Your task to perform on an android device: Open sound settings Image 0: 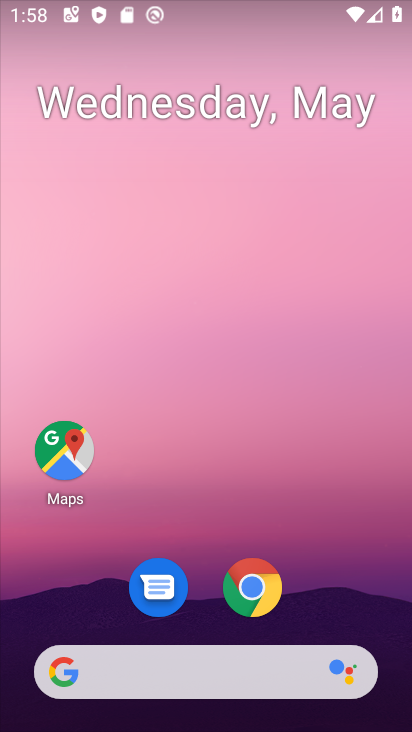
Step 0: drag from (89, 634) to (256, 182)
Your task to perform on an android device: Open sound settings Image 1: 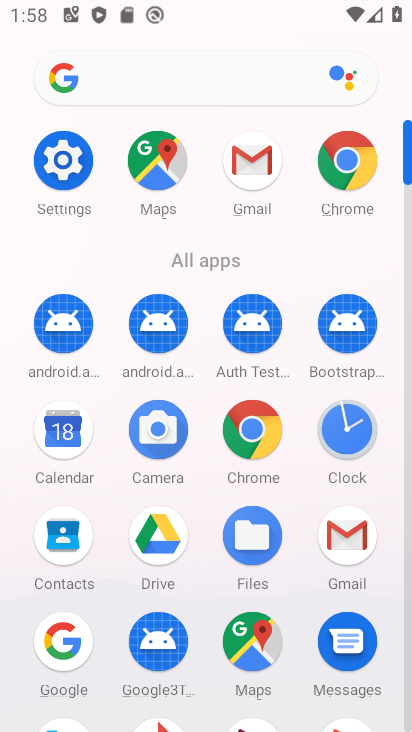
Step 1: drag from (171, 591) to (260, 360)
Your task to perform on an android device: Open sound settings Image 2: 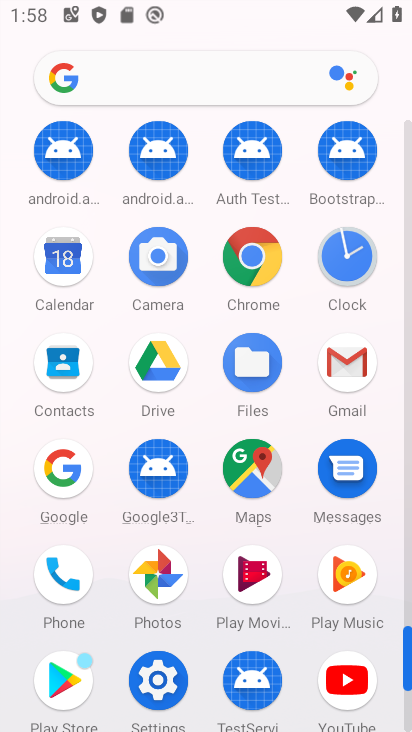
Step 2: click (161, 681)
Your task to perform on an android device: Open sound settings Image 3: 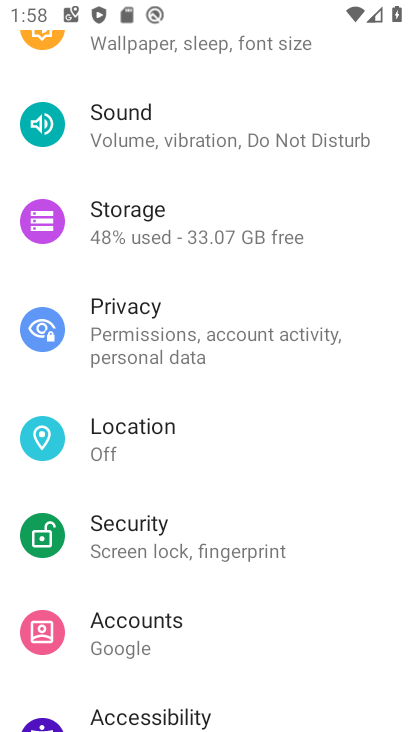
Step 3: drag from (197, 573) to (288, 632)
Your task to perform on an android device: Open sound settings Image 4: 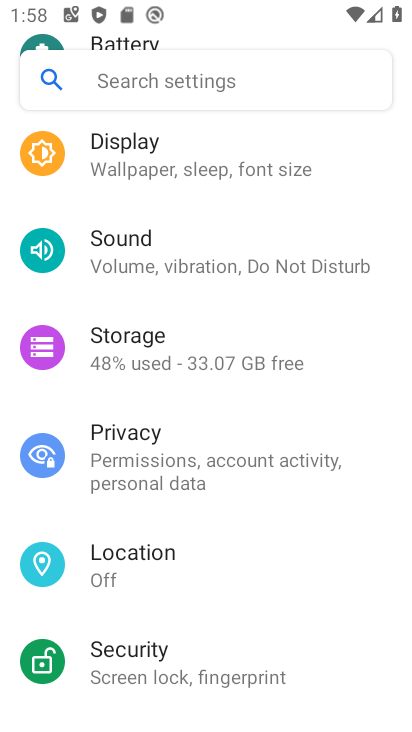
Step 4: click (222, 259)
Your task to perform on an android device: Open sound settings Image 5: 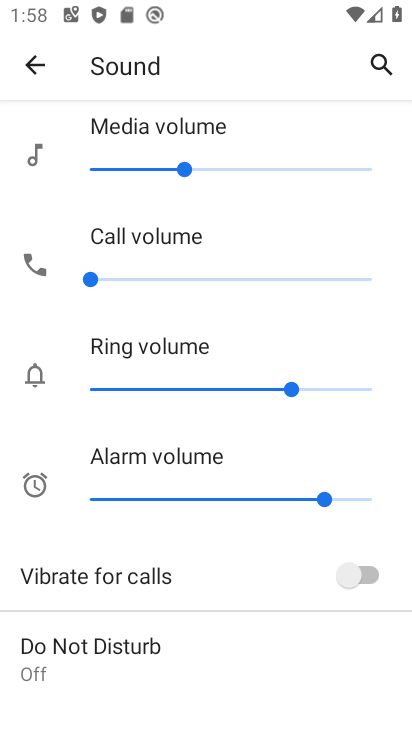
Step 5: task complete